Your task to perform on an android device: Open Youtube and go to the subscriptions tab Image 0: 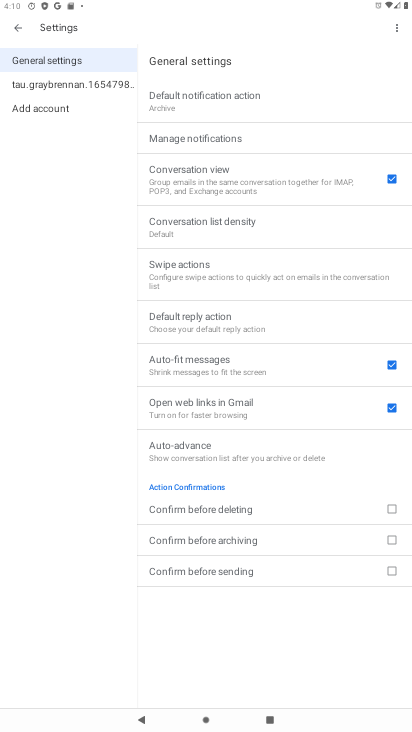
Step 0: press home button
Your task to perform on an android device: Open Youtube and go to the subscriptions tab Image 1: 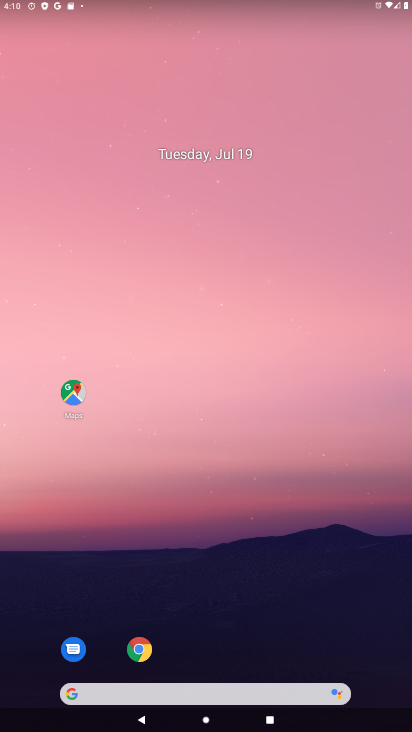
Step 1: drag from (362, 650) to (301, 238)
Your task to perform on an android device: Open Youtube and go to the subscriptions tab Image 2: 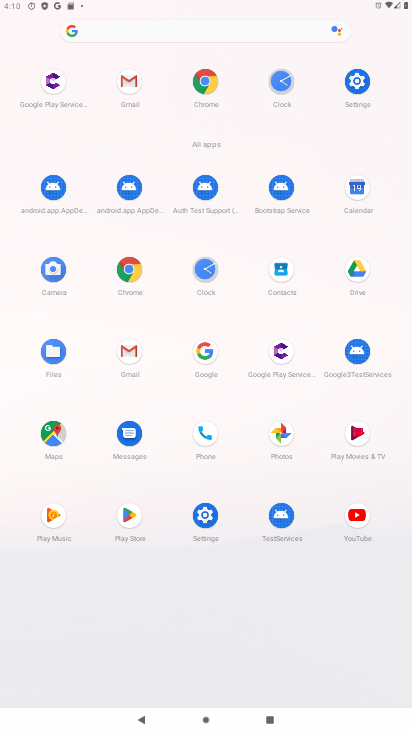
Step 2: click (351, 515)
Your task to perform on an android device: Open Youtube and go to the subscriptions tab Image 3: 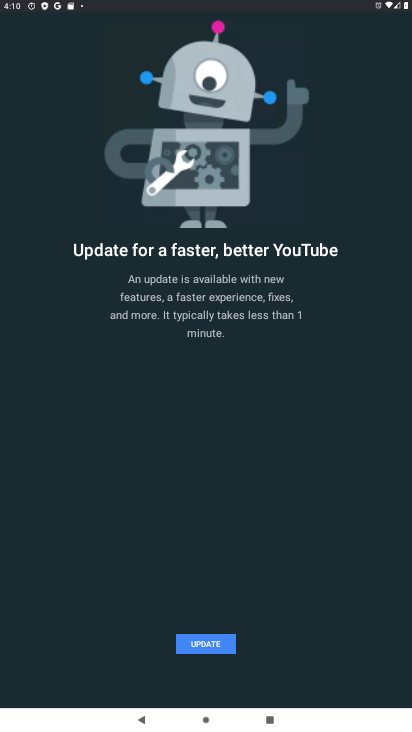
Step 3: click (189, 642)
Your task to perform on an android device: Open Youtube and go to the subscriptions tab Image 4: 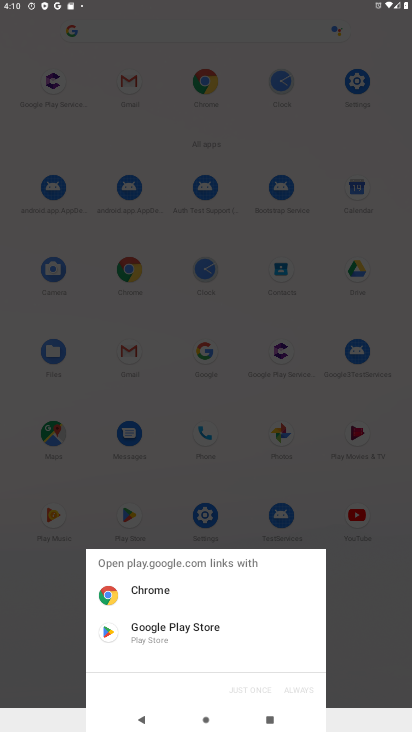
Step 4: click (211, 642)
Your task to perform on an android device: Open Youtube and go to the subscriptions tab Image 5: 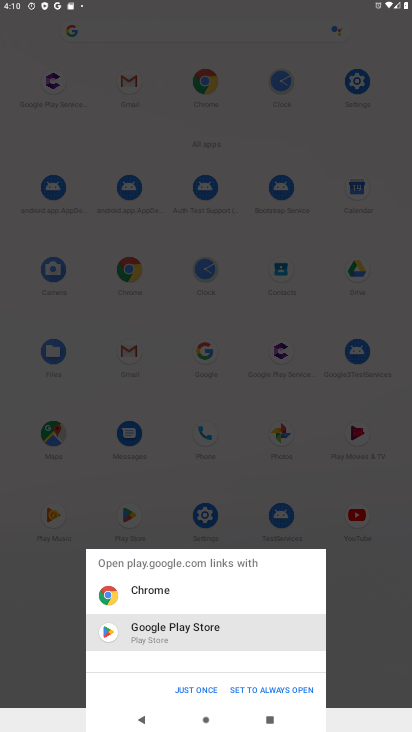
Step 5: click (191, 687)
Your task to perform on an android device: Open Youtube and go to the subscriptions tab Image 6: 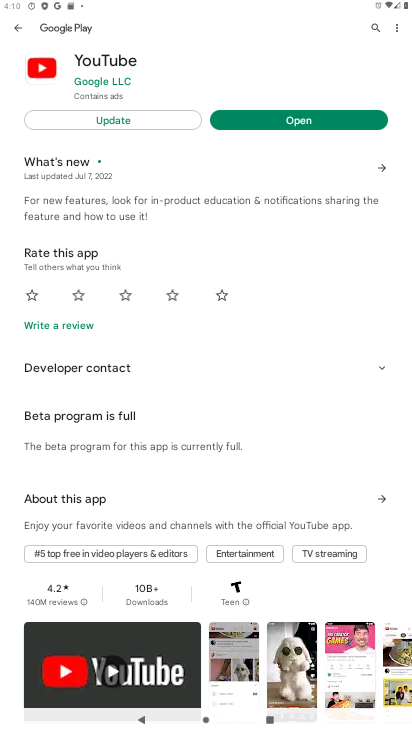
Step 6: click (123, 119)
Your task to perform on an android device: Open Youtube and go to the subscriptions tab Image 7: 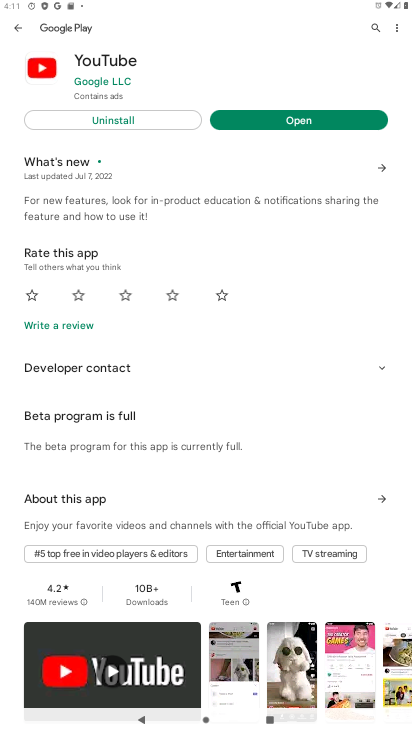
Step 7: click (369, 118)
Your task to perform on an android device: Open Youtube and go to the subscriptions tab Image 8: 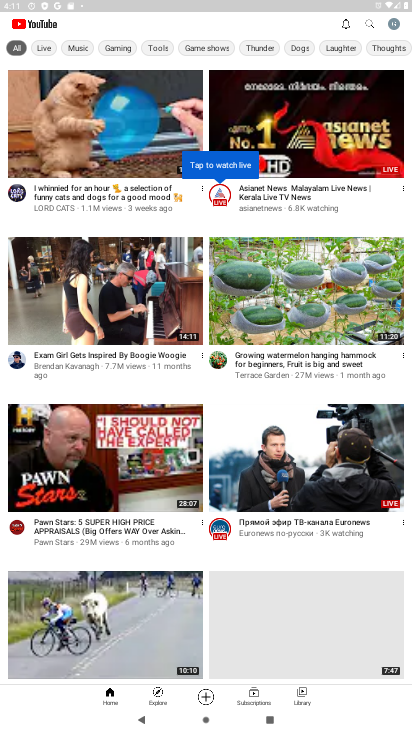
Step 8: click (260, 686)
Your task to perform on an android device: Open Youtube and go to the subscriptions tab Image 9: 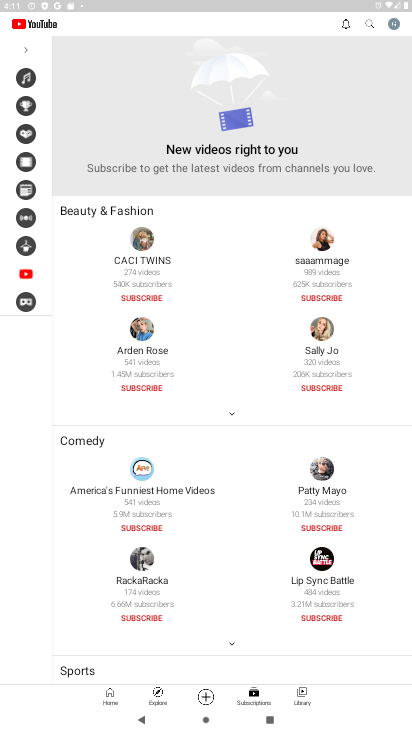
Step 9: task complete